Your task to perform on an android device: open chrome and create a bookmark for the current page Image 0: 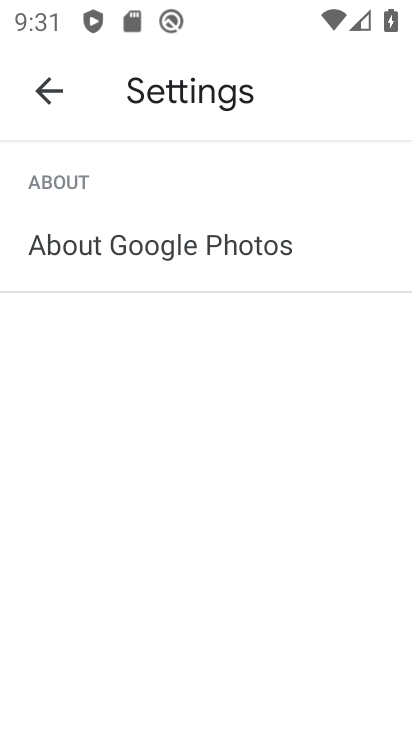
Step 0: press home button
Your task to perform on an android device: open chrome and create a bookmark for the current page Image 1: 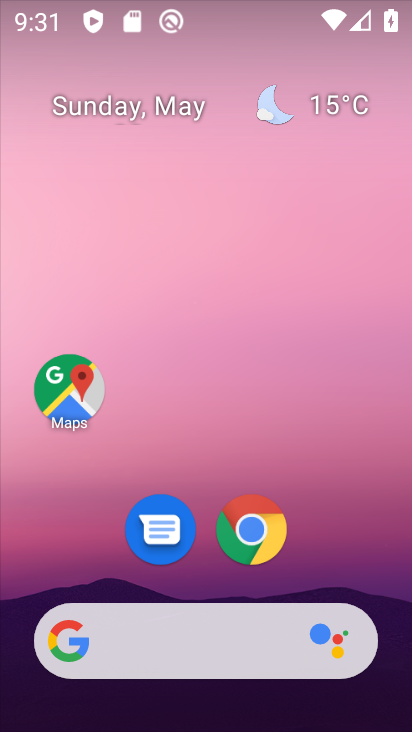
Step 1: drag from (197, 661) to (326, 160)
Your task to perform on an android device: open chrome and create a bookmark for the current page Image 2: 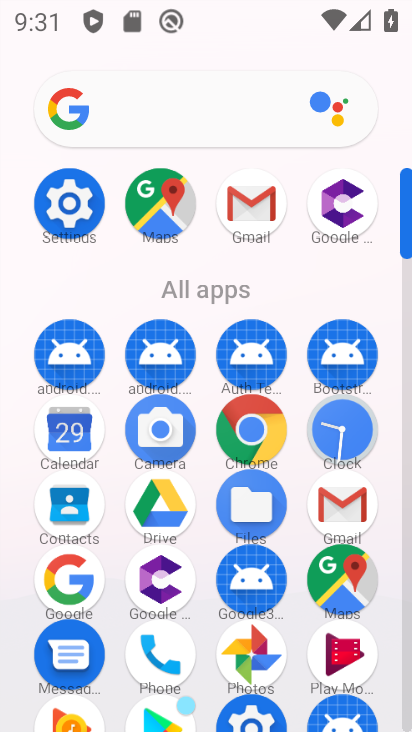
Step 2: click (252, 430)
Your task to perform on an android device: open chrome and create a bookmark for the current page Image 3: 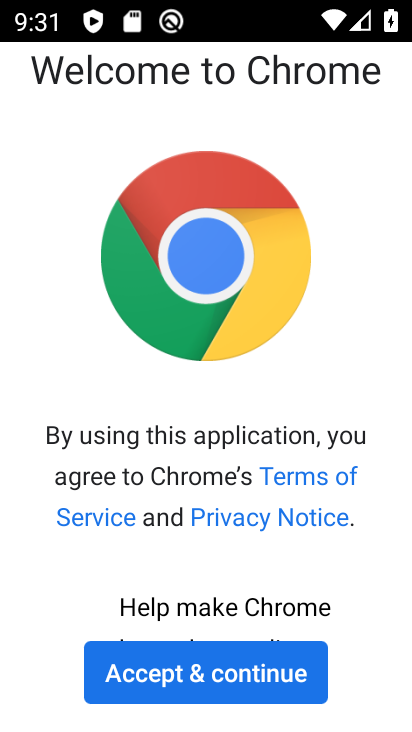
Step 3: click (255, 650)
Your task to perform on an android device: open chrome and create a bookmark for the current page Image 4: 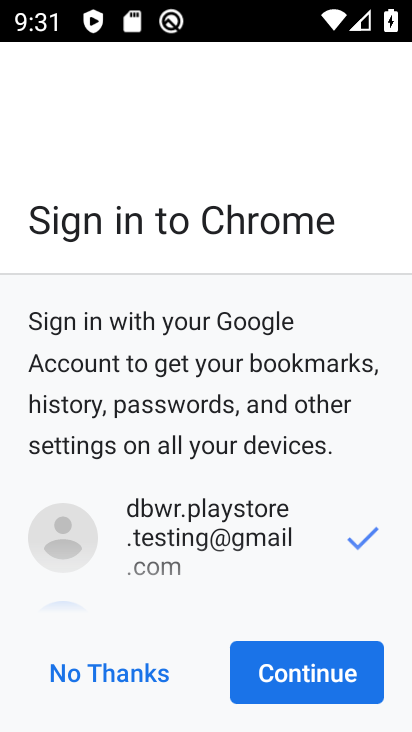
Step 4: click (136, 677)
Your task to perform on an android device: open chrome and create a bookmark for the current page Image 5: 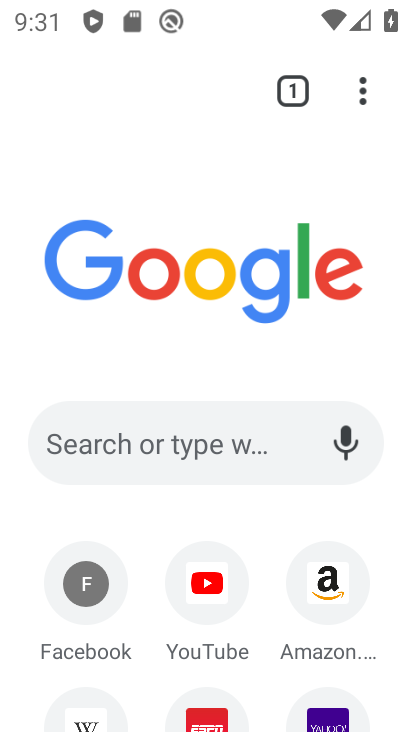
Step 5: click (370, 89)
Your task to perform on an android device: open chrome and create a bookmark for the current page Image 6: 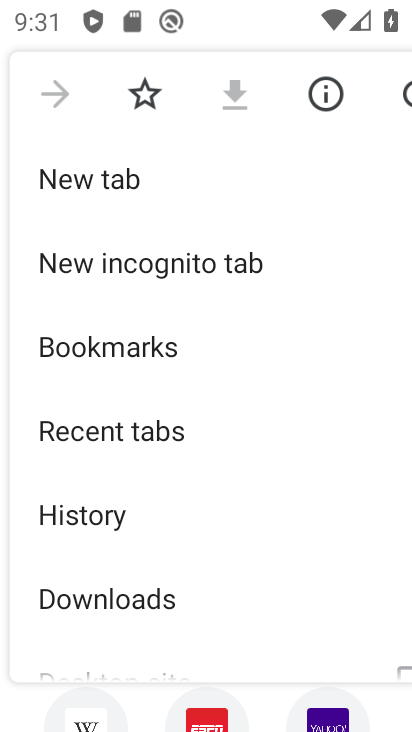
Step 6: click (195, 343)
Your task to perform on an android device: open chrome and create a bookmark for the current page Image 7: 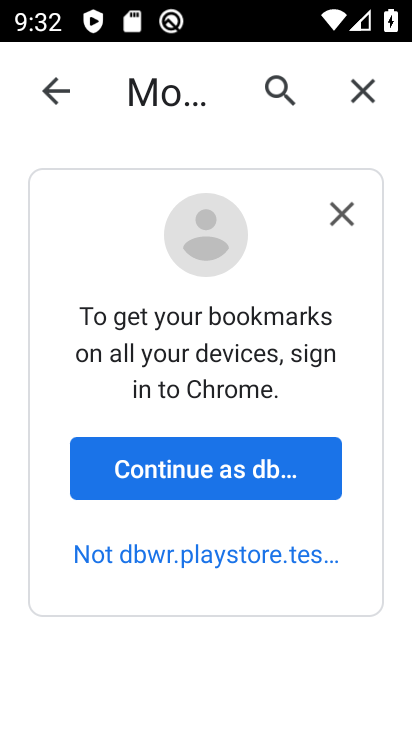
Step 7: task complete